Your task to perform on an android device: Open Chrome and go to settings Image 0: 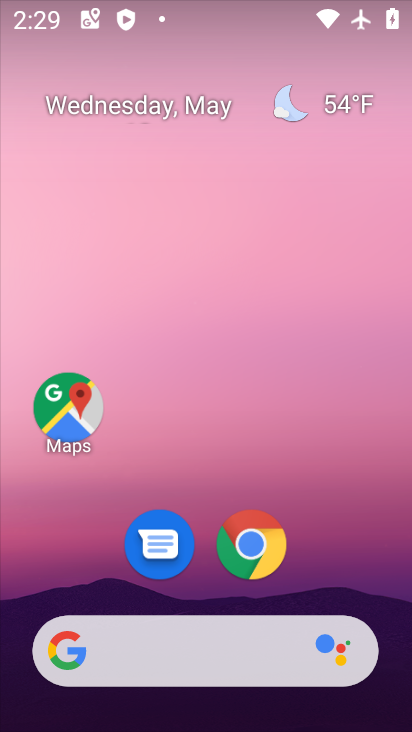
Step 0: click (247, 561)
Your task to perform on an android device: Open Chrome and go to settings Image 1: 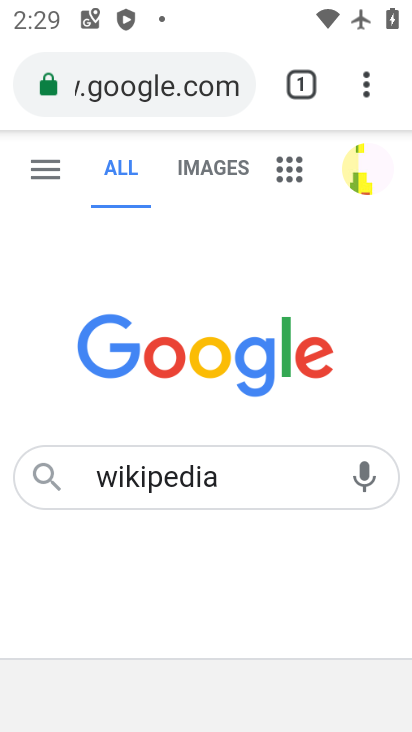
Step 1: click (377, 107)
Your task to perform on an android device: Open Chrome and go to settings Image 2: 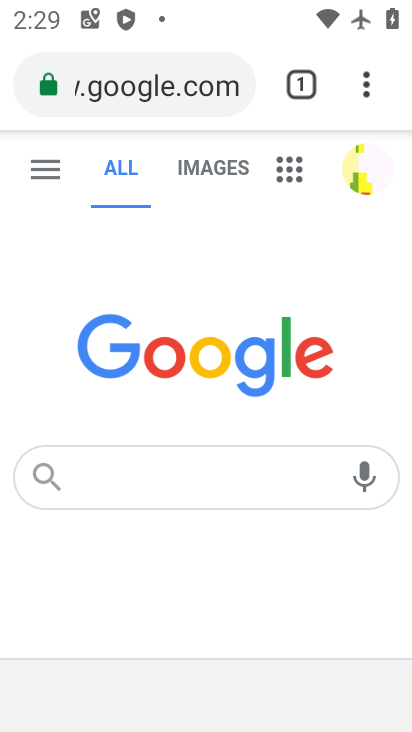
Step 2: click (364, 89)
Your task to perform on an android device: Open Chrome and go to settings Image 3: 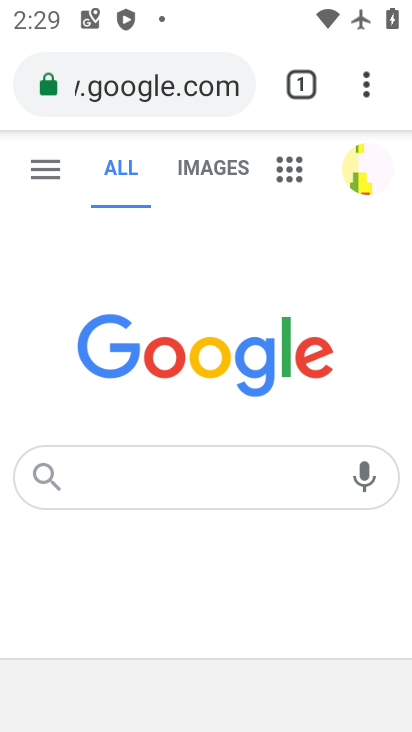
Step 3: drag from (280, 550) to (292, 324)
Your task to perform on an android device: Open Chrome and go to settings Image 4: 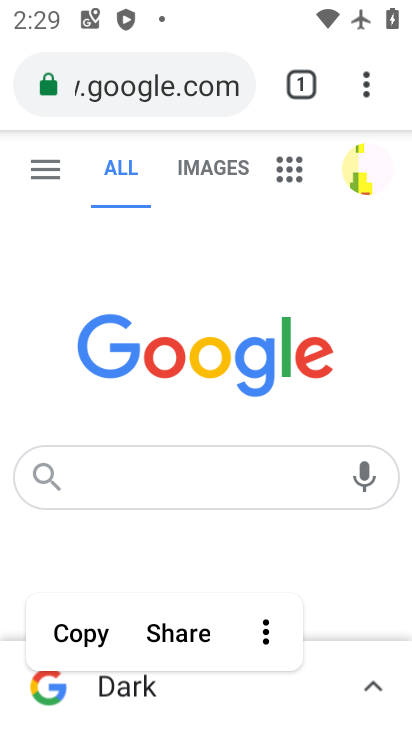
Step 4: click (374, 69)
Your task to perform on an android device: Open Chrome and go to settings Image 5: 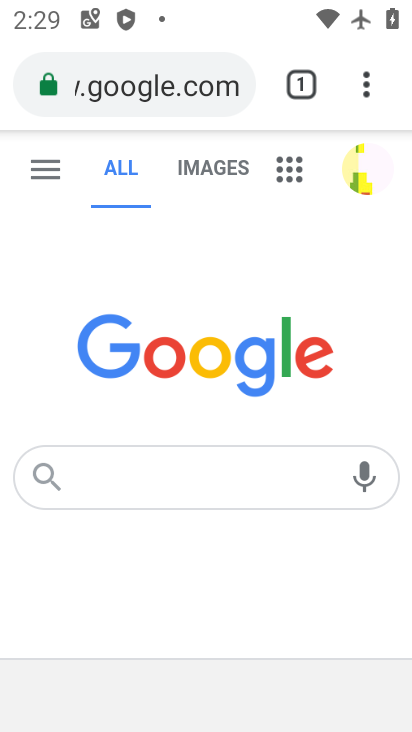
Step 5: click (369, 78)
Your task to perform on an android device: Open Chrome and go to settings Image 6: 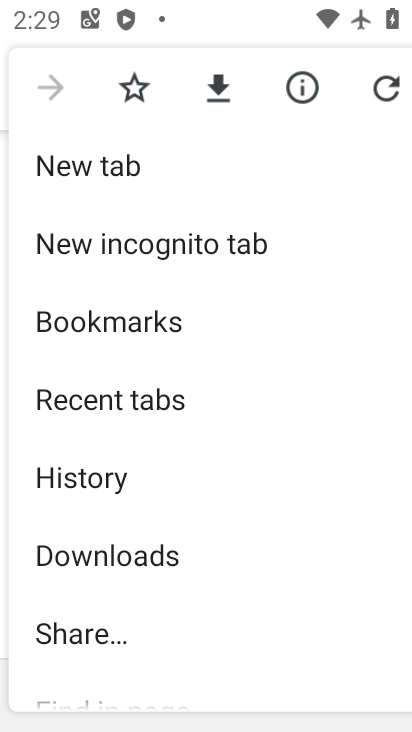
Step 6: drag from (174, 596) to (210, 364)
Your task to perform on an android device: Open Chrome and go to settings Image 7: 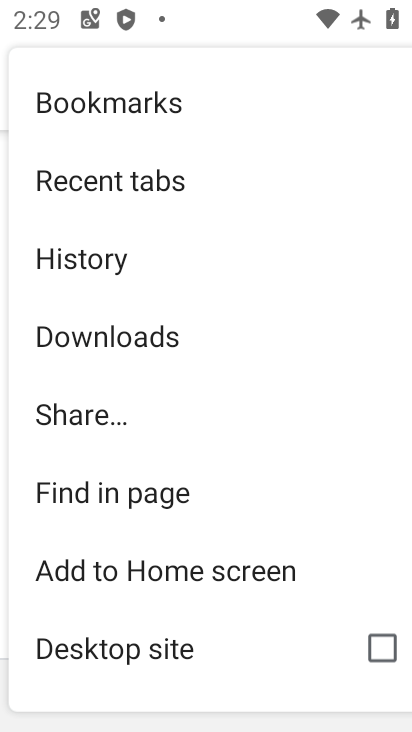
Step 7: drag from (168, 674) to (182, 396)
Your task to perform on an android device: Open Chrome and go to settings Image 8: 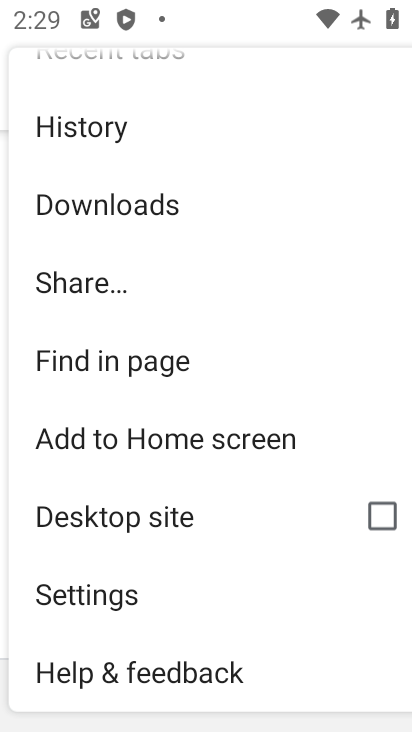
Step 8: click (157, 601)
Your task to perform on an android device: Open Chrome and go to settings Image 9: 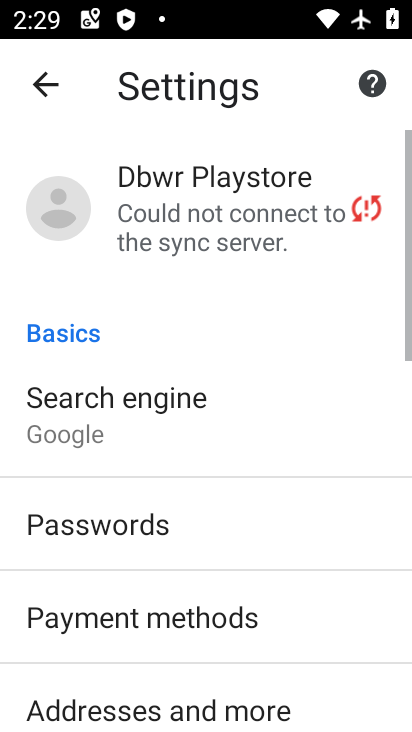
Step 9: task complete